Your task to perform on an android device: change timer sound Image 0: 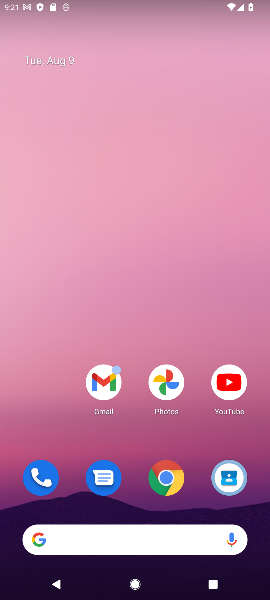
Step 0: drag from (94, 324) to (87, 69)
Your task to perform on an android device: change timer sound Image 1: 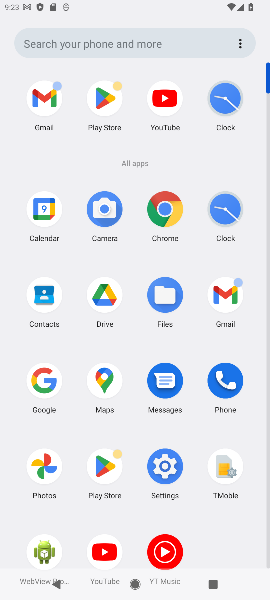
Step 1: click (223, 100)
Your task to perform on an android device: change timer sound Image 2: 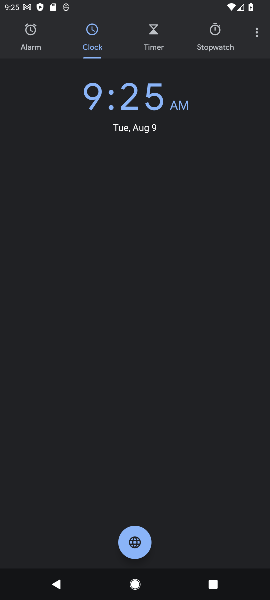
Step 2: click (262, 35)
Your task to perform on an android device: change timer sound Image 3: 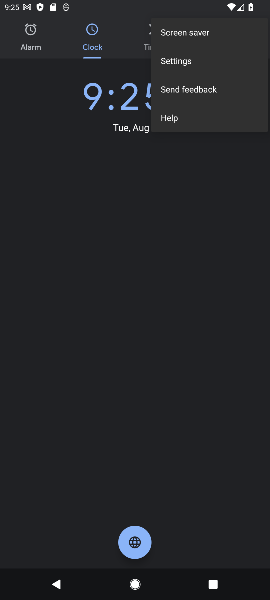
Step 3: task complete